Your task to perform on an android device: Go to Yahoo.com Image 0: 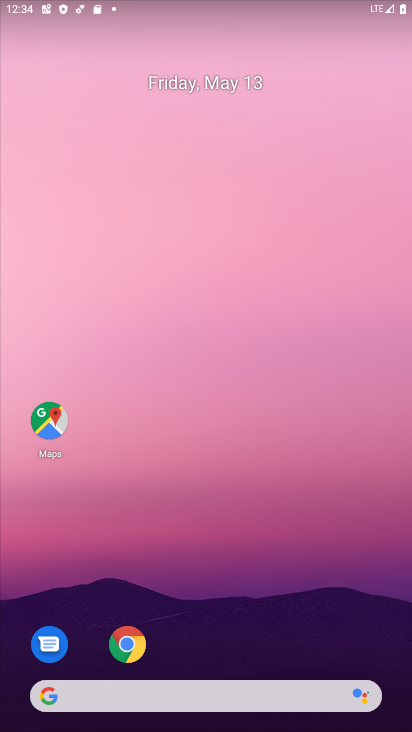
Step 0: drag from (322, 628) to (234, 131)
Your task to perform on an android device: Go to Yahoo.com Image 1: 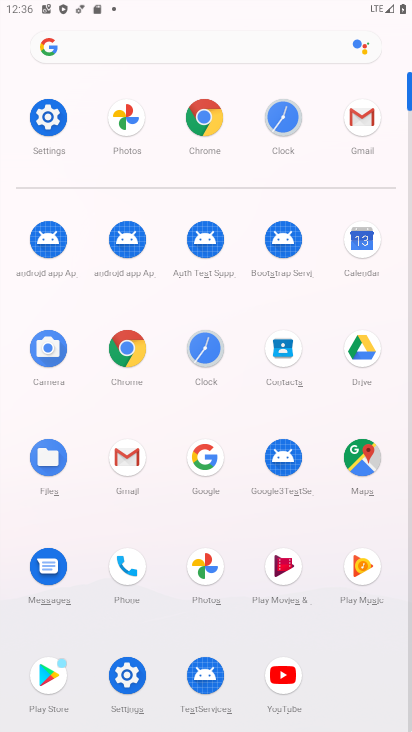
Step 1: click (117, 352)
Your task to perform on an android device: Go to Yahoo.com Image 2: 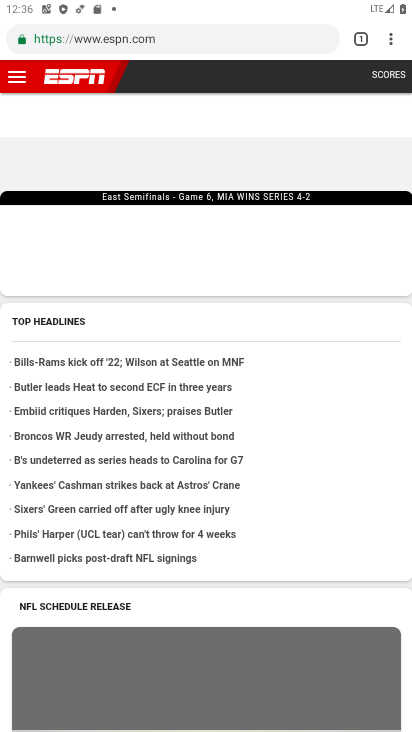
Step 2: press back button
Your task to perform on an android device: Go to Yahoo.com Image 3: 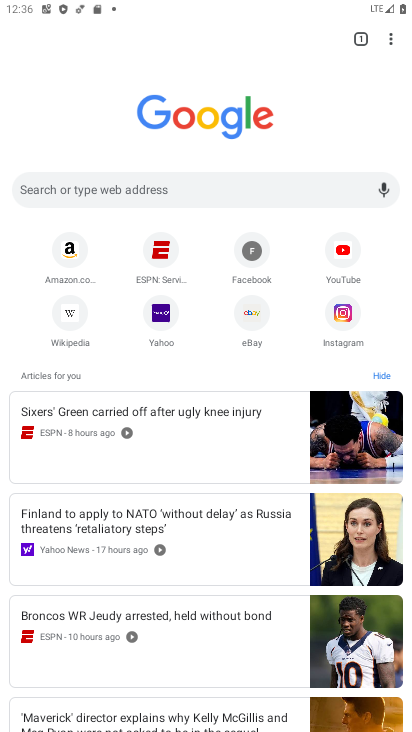
Step 3: click (159, 313)
Your task to perform on an android device: Go to Yahoo.com Image 4: 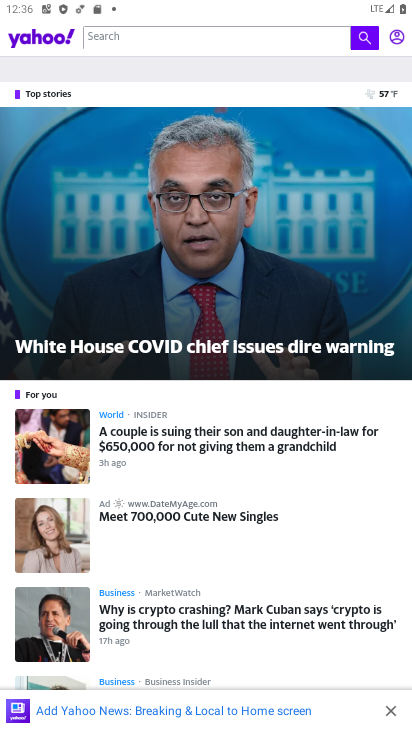
Step 4: task complete